Your task to perform on an android device: Go to privacy settings Image 0: 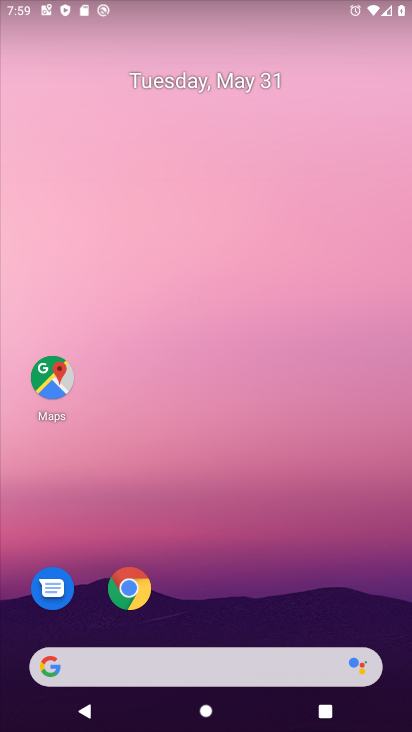
Step 0: drag from (223, 614) to (328, 1)
Your task to perform on an android device: Go to privacy settings Image 1: 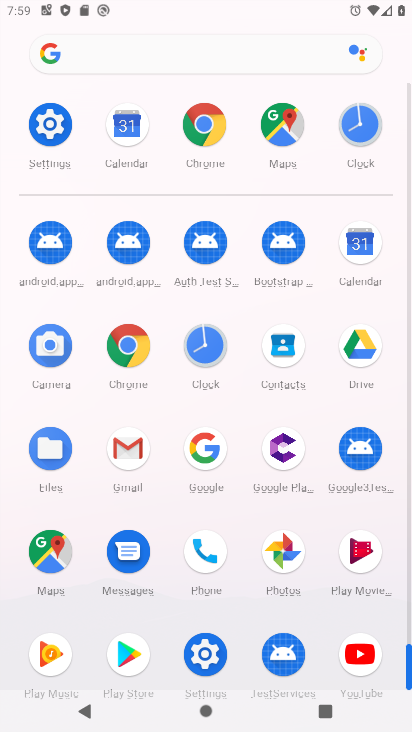
Step 1: click (53, 144)
Your task to perform on an android device: Go to privacy settings Image 2: 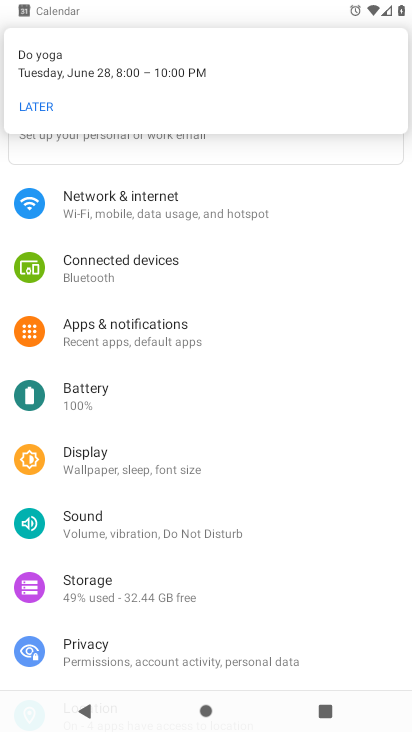
Step 2: click (109, 659)
Your task to perform on an android device: Go to privacy settings Image 3: 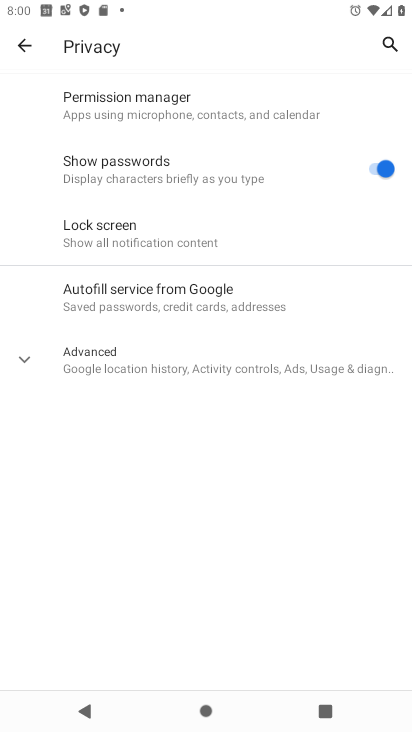
Step 3: task complete